Your task to perform on an android device: show emergency info Image 0: 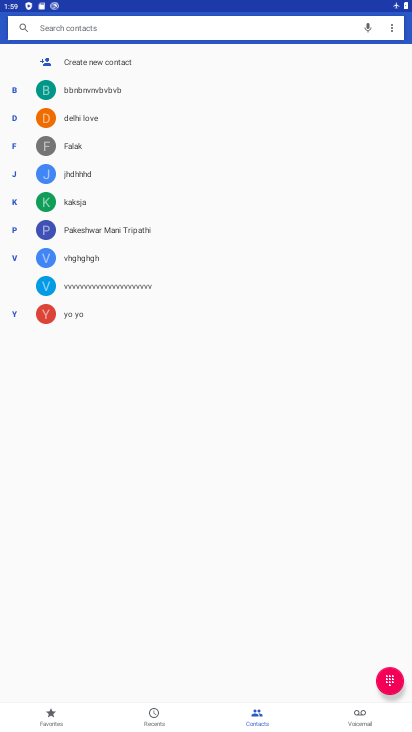
Step 0: press home button
Your task to perform on an android device: show emergency info Image 1: 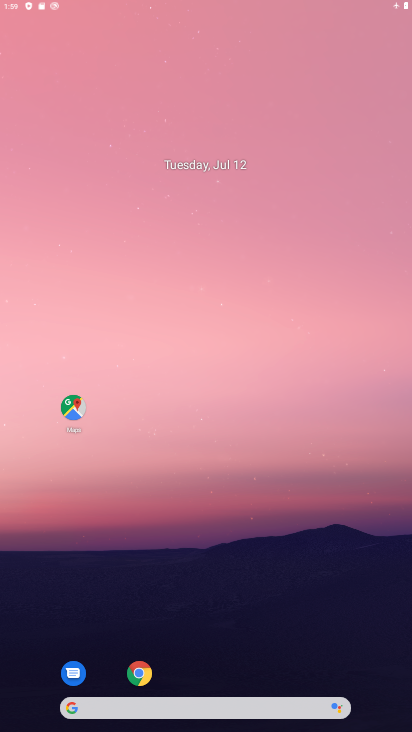
Step 1: drag from (229, 692) to (235, 282)
Your task to perform on an android device: show emergency info Image 2: 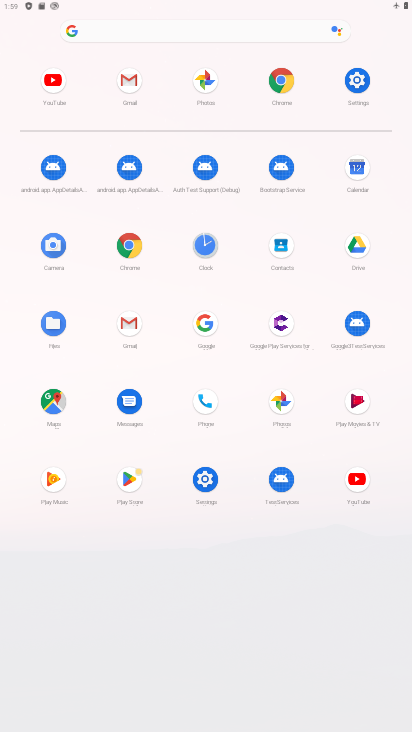
Step 2: click (355, 74)
Your task to perform on an android device: show emergency info Image 3: 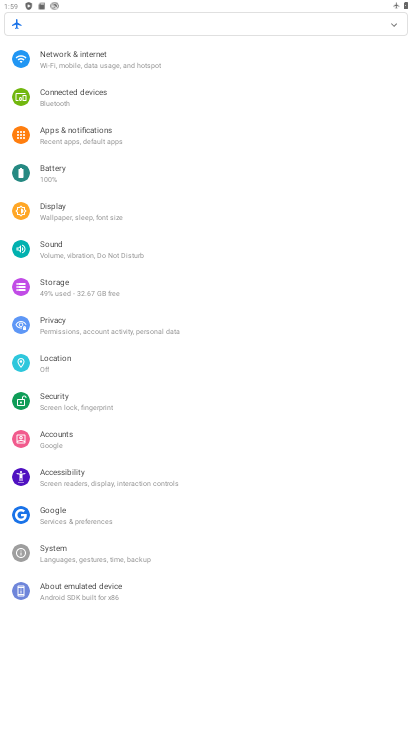
Step 3: click (98, 591)
Your task to perform on an android device: show emergency info Image 4: 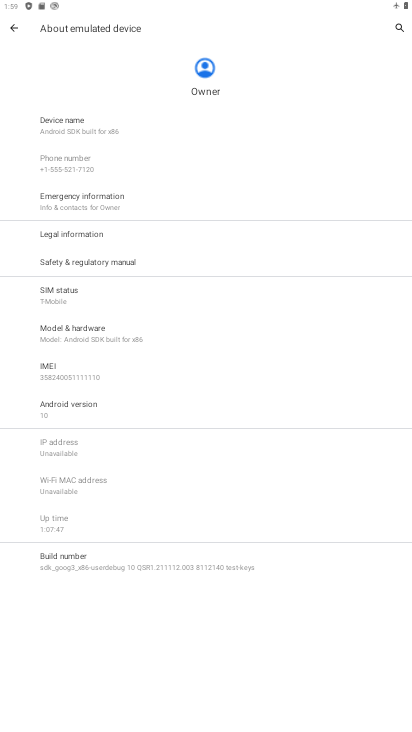
Step 4: click (110, 188)
Your task to perform on an android device: show emergency info Image 5: 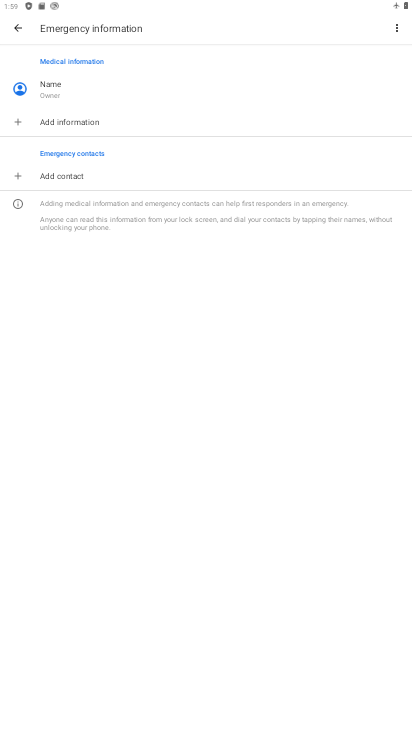
Step 5: task complete